Your task to perform on an android device: Open CNN.com Image 0: 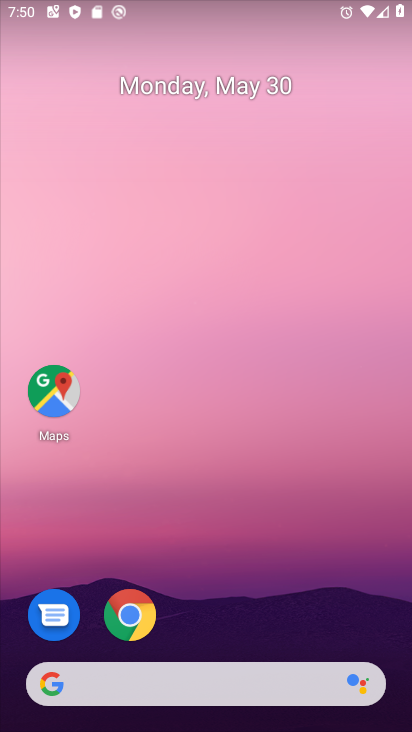
Step 0: drag from (317, 612) to (379, 118)
Your task to perform on an android device: Open CNN.com Image 1: 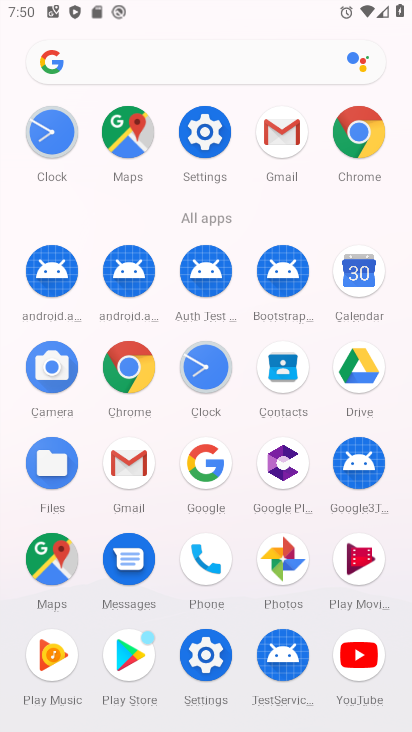
Step 1: click (358, 137)
Your task to perform on an android device: Open CNN.com Image 2: 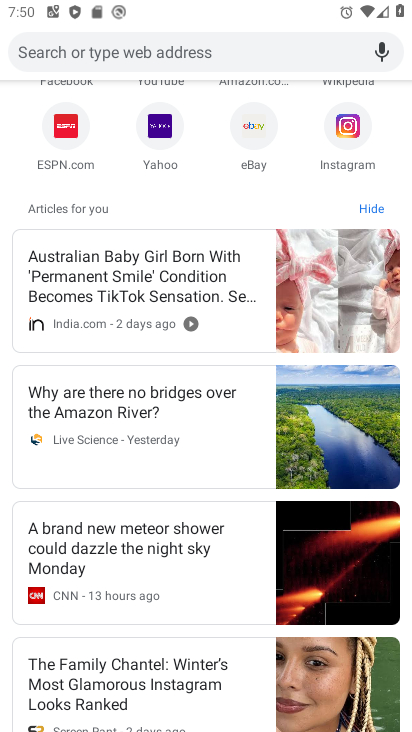
Step 2: drag from (162, 306) to (251, 634)
Your task to perform on an android device: Open CNN.com Image 3: 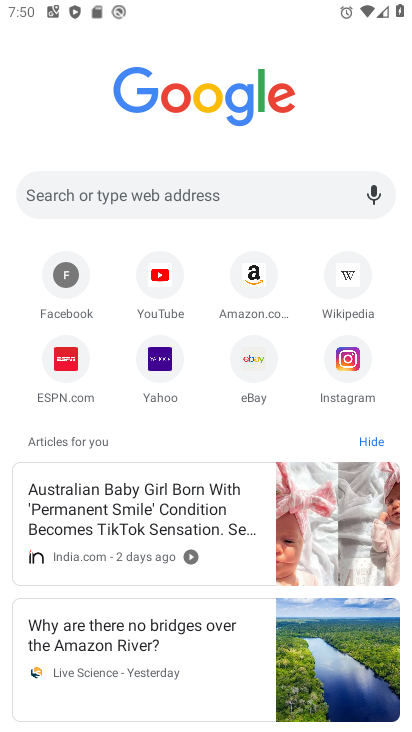
Step 3: click (119, 183)
Your task to perform on an android device: Open CNN.com Image 4: 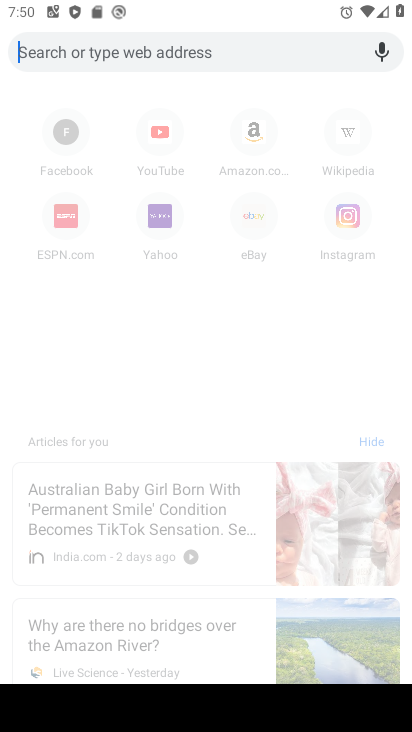
Step 4: type "cnn"
Your task to perform on an android device: Open CNN.com Image 5: 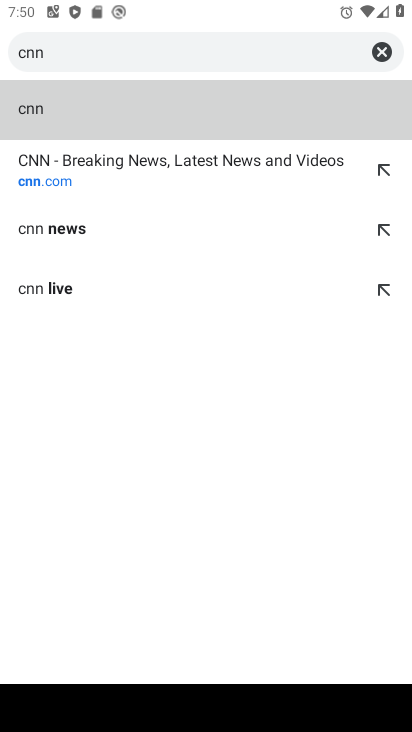
Step 5: click (81, 175)
Your task to perform on an android device: Open CNN.com Image 6: 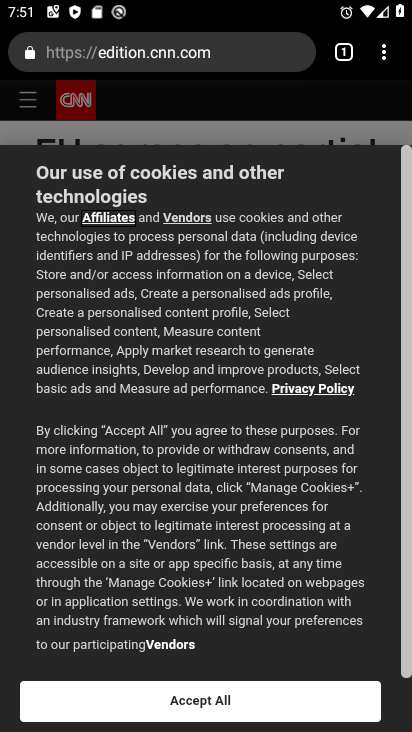
Step 6: task complete